Your task to perform on an android device: turn on javascript in the chrome app Image 0: 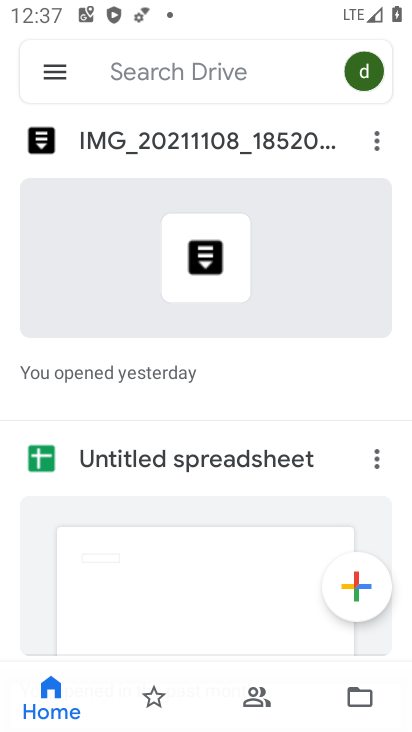
Step 0: press back button
Your task to perform on an android device: turn on javascript in the chrome app Image 1: 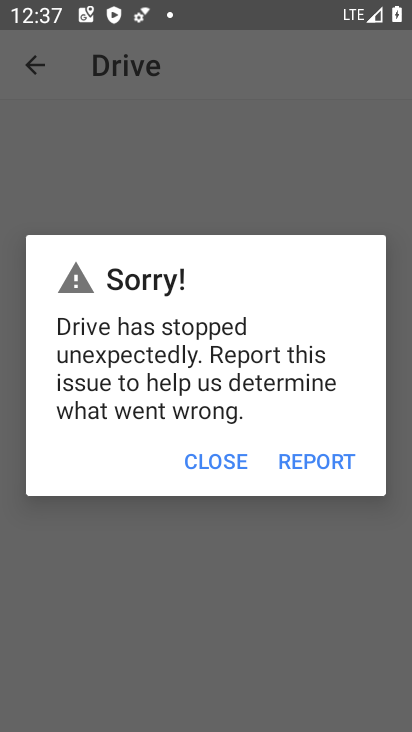
Step 1: press back button
Your task to perform on an android device: turn on javascript in the chrome app Image 2: 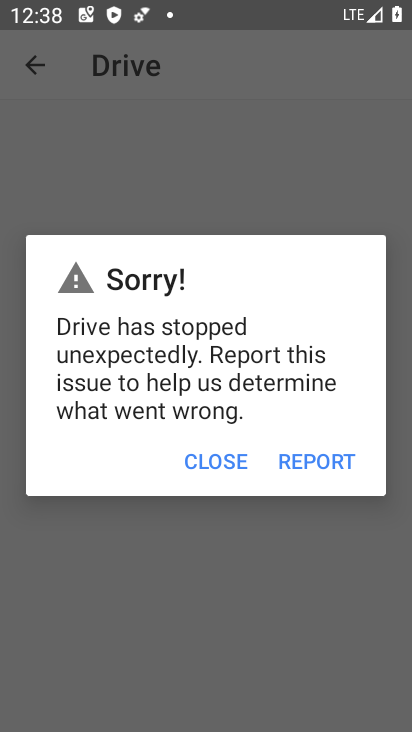
Step 2: press back button
Your task to perform on an android device: turn on javascript in the chrome app Image 3: 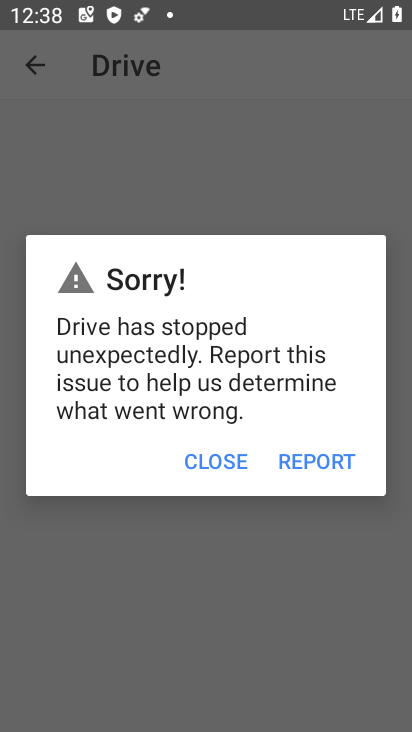
Step 3: press home button
Your task to perform on an android device: turn on javascript in the chrome app Image 4: 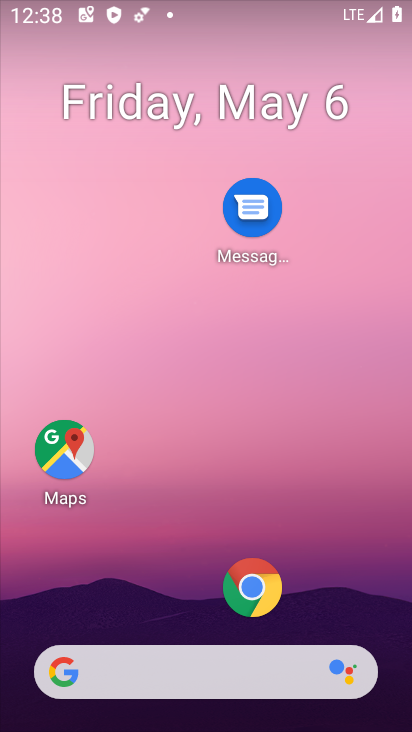
Step 4: drag from (134, 539) to (235, 81)
Your task to perform on an android device: turn on javascript in the chrome app Image 5: 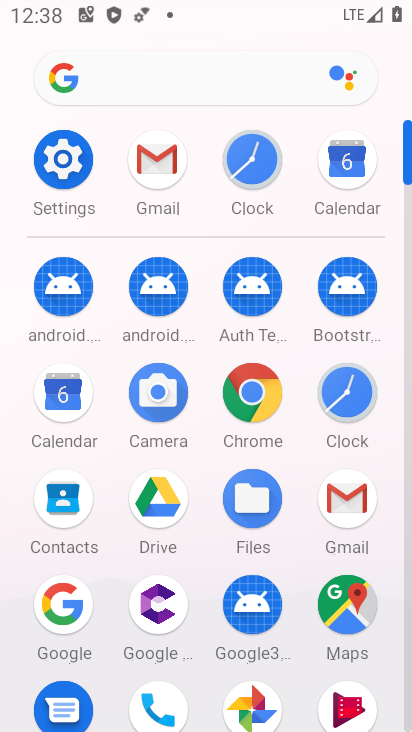
Step 5: click (266, 379)
Your task to perform on an android device: turn on javascript in the chrome app Image 6: 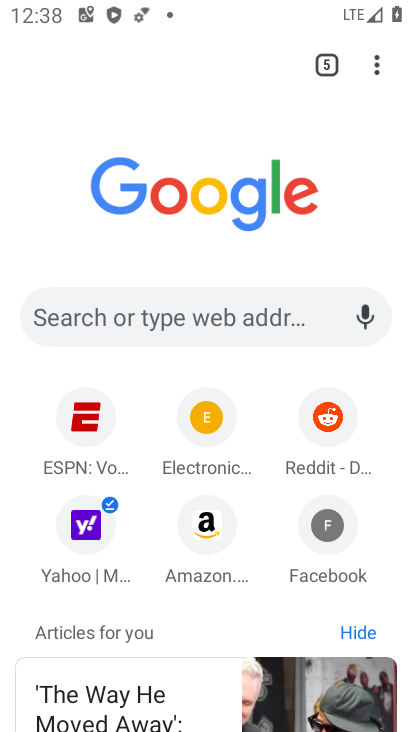
Step 6: click (378, 66)
Your task to perform on an android device: turn on javascript in the chrome app Image 7: 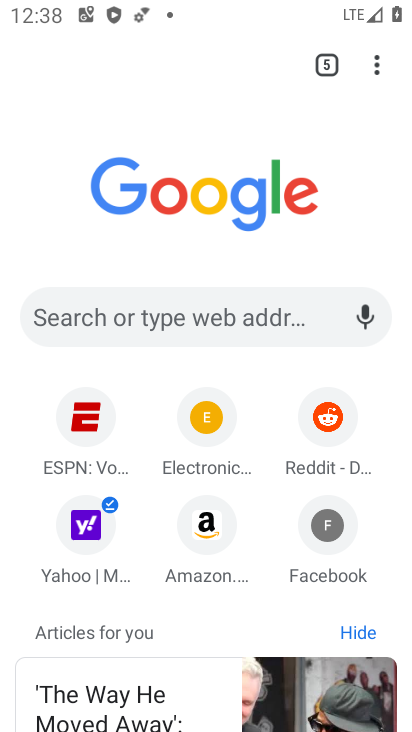
Step 7: drag from (371, 61) to (131, 563)
Your task to perform on an android device: turn on javascript in the chrome app Image 8: 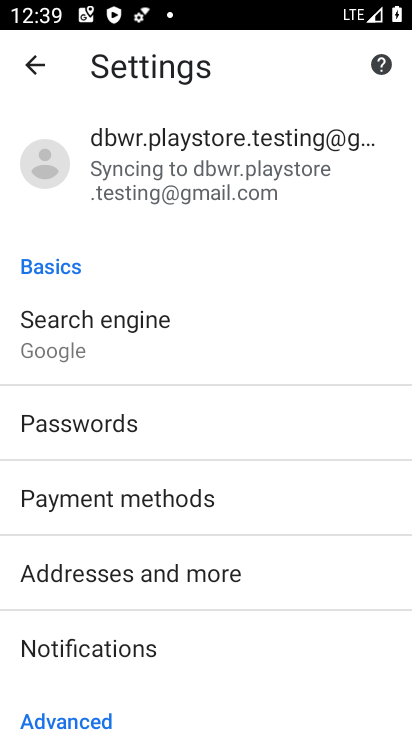
Step 8: drag from (180, 389) to (242, 75)
Your task to perform on an android device: turn on javascript in the chrome app Image 9: 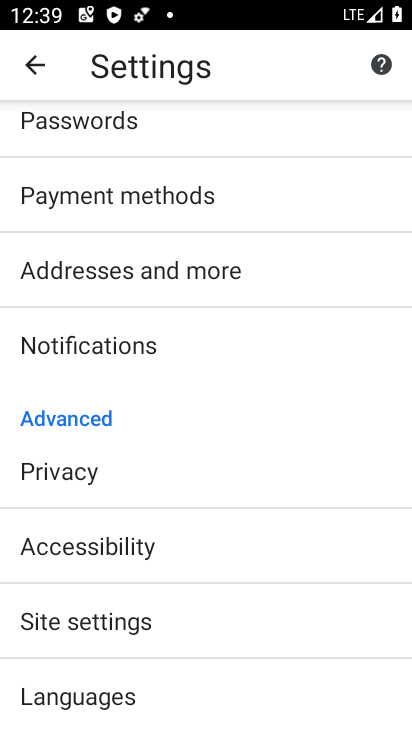
Step 9: click (132, 636)
Your task to perform on an android device: turn on javascript in the chrome app Image 10: 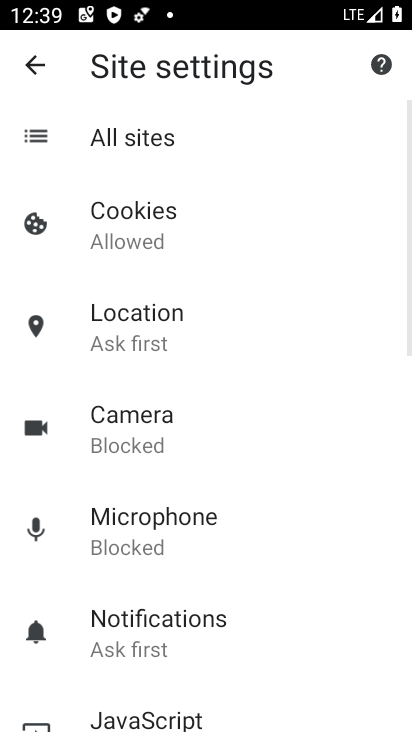
Step 10: drag from (158, 662) to (205, 242)
Your task to perform on an android device: turn on javascript in the chrome app Image 11: 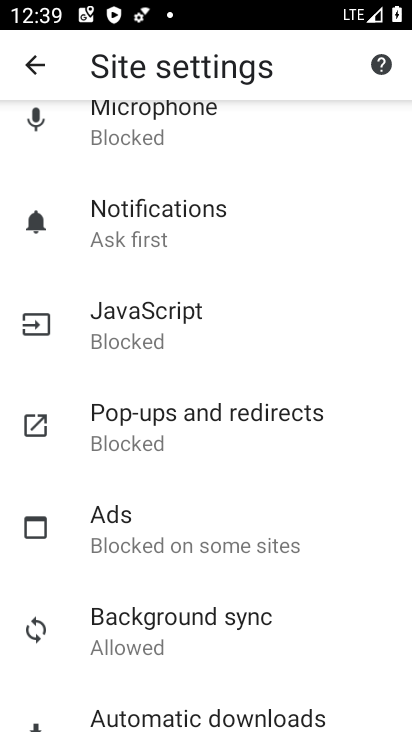
Step 11: click (144, 333)
Your task to perform on an android device: turn on javascript in the chrome app Image 12: 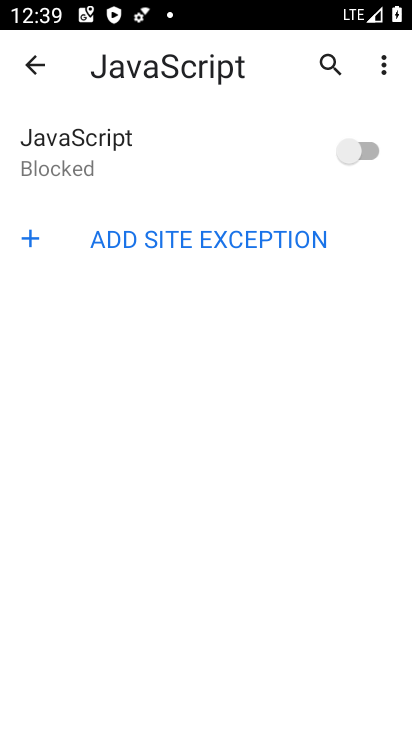
Step 12: click (350, 148)
Your task to perform on an android device: turn on javascript in the chrome app Image 13: 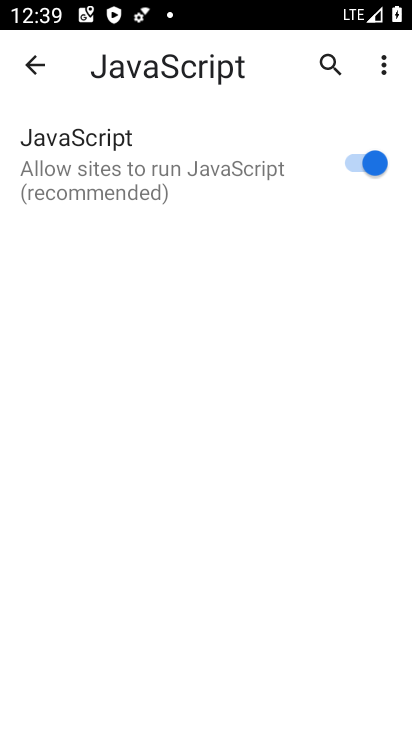
Step 13: task complete